Your task to perform on an android device: Is it going to rain tomorrow? Image 0: 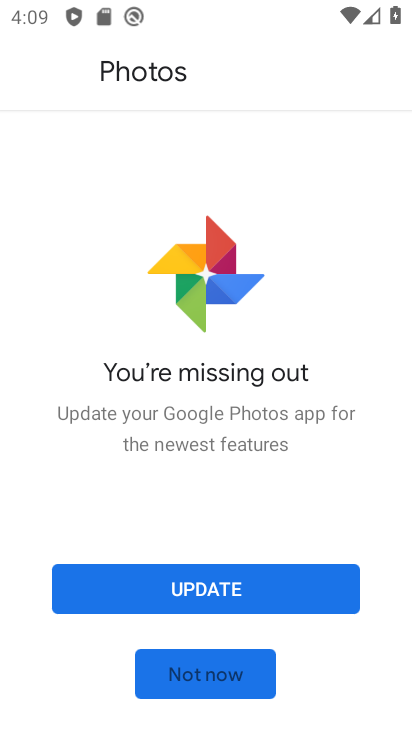
Step 0: press home button
Your task to perform on an android device: Is it going to rain tomorrow? Image 1: 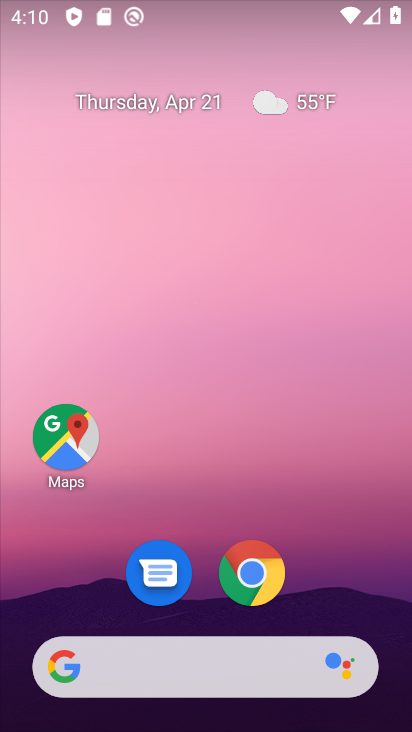
Step 1: click (300, 102)
Your task to perform on an android device: Is it going to rain tomorrow? Image 2: 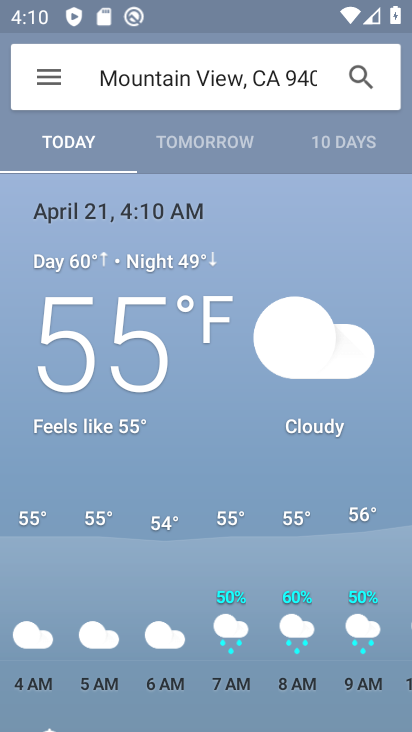
Step 2: click (207, 143)
Your task to perform on an android device: Is it going to rain tomorrow? Image 3: 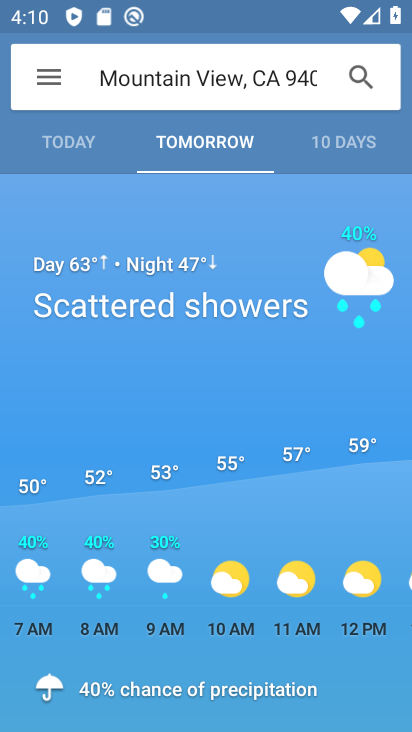
Step 3: task complete